Your task to perform on an android device: open a new tab in the chrome app Image 0: 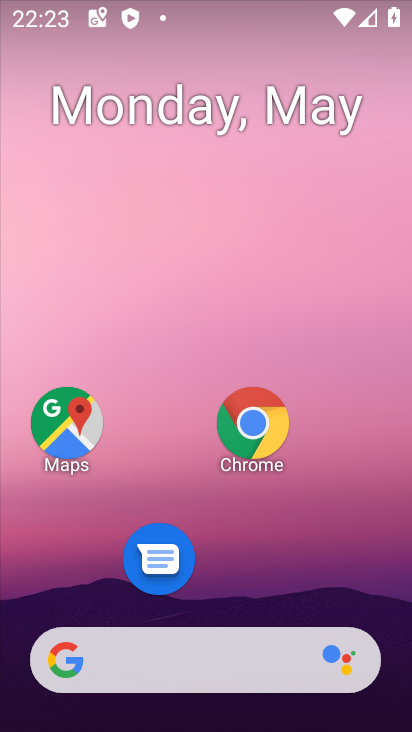
Step 0: click (261, 429)
Your task to perform on an android device: open a new tab in the chrome app Image 1: 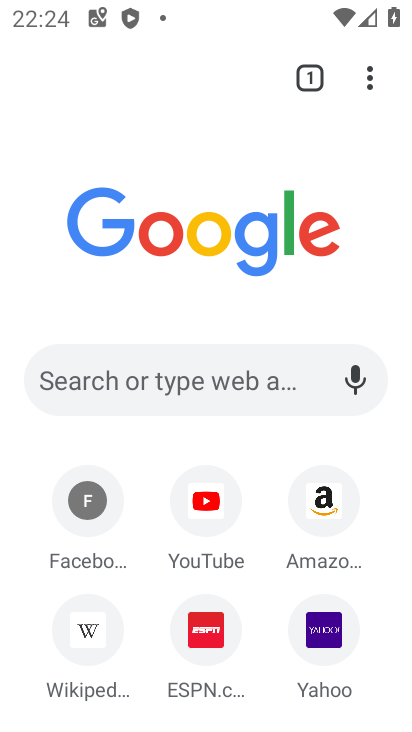
Step 1: task complete